Your task to perform on an android device: toggle location history Image 0: 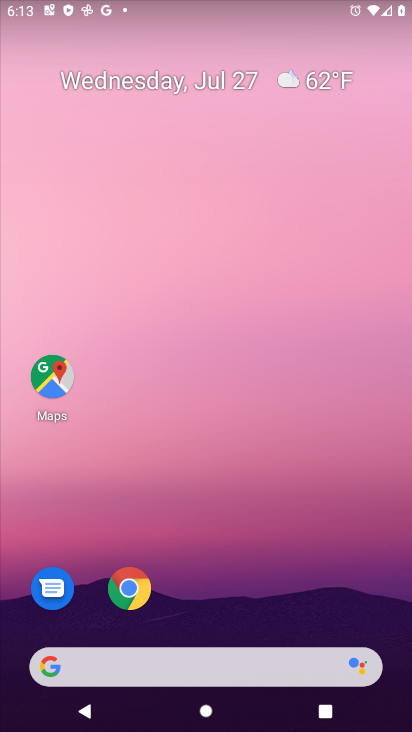
Step 0: drag from (194, 540) to (176, 223)
Your task to perform on an android device: toggle location history Image 1: 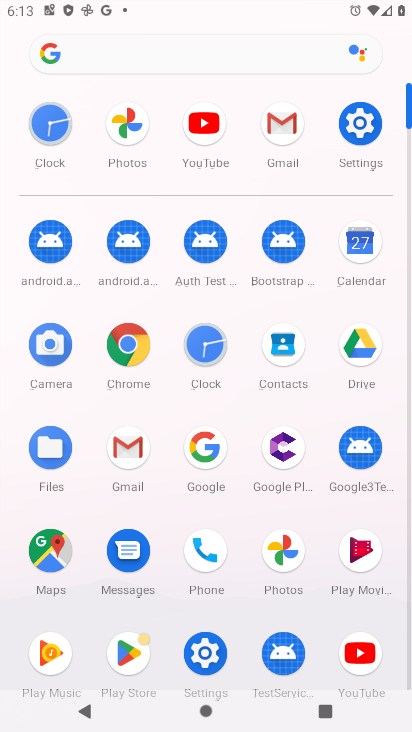
Step 1: click (357, 133)
Your task to perform on an android device: toggle location history Image 2: 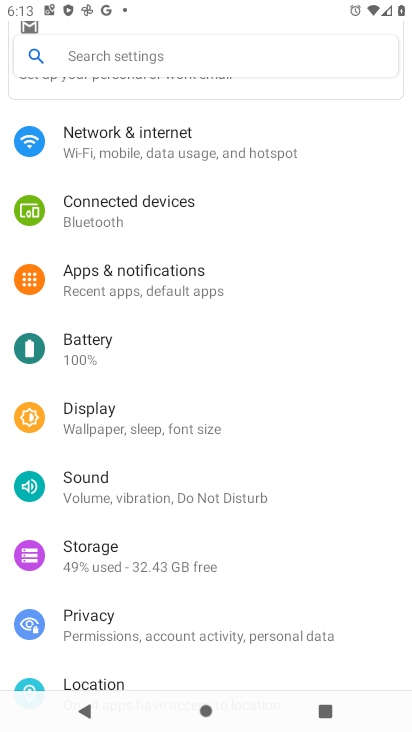
Step 2: click (114, 682)
Your task to perform on an android device: toggle location history Image 3: 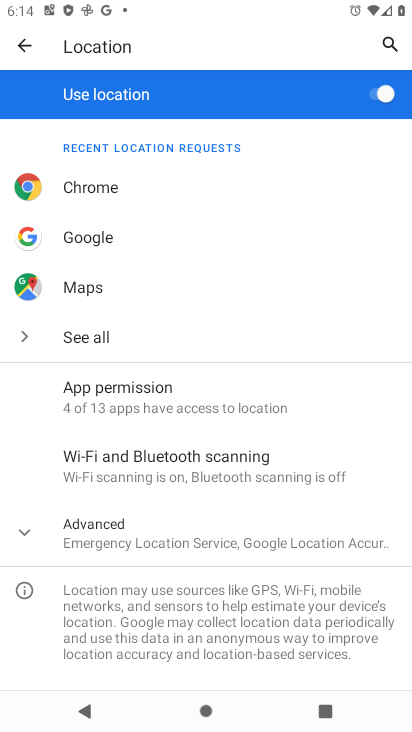
Step 3: click (155, 536)
Your task to perform on an android device: toggle location history Image 4: 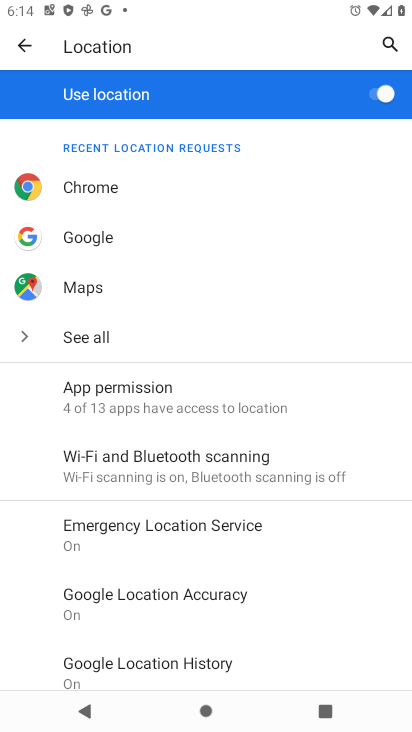
Step 4: drag from (164, 540) to (172, 397)
Your task to perform on an android device: toggle location history Image 5: 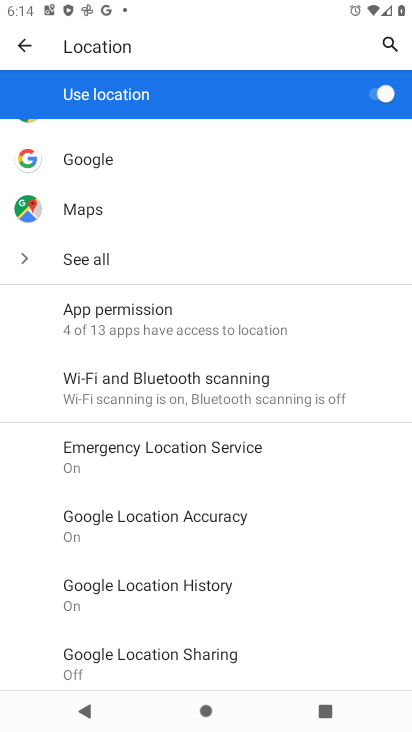
Step 5: click (158, 580)
Your task to perform on an android device: toggle location history Image 6: 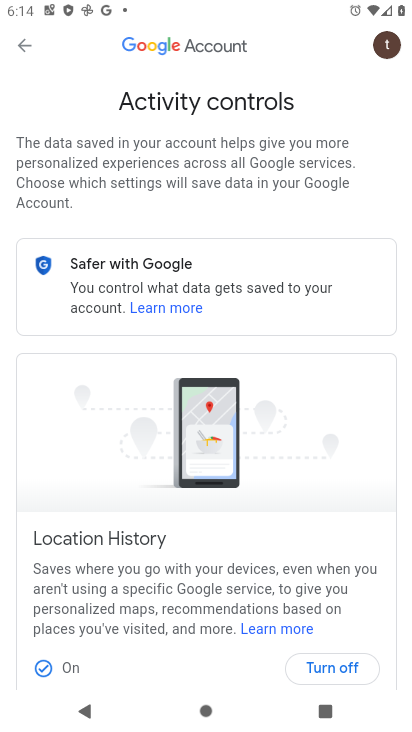
Step 6: click (327, 666)
Your task to perform on an android device: toggle location history Image 7: 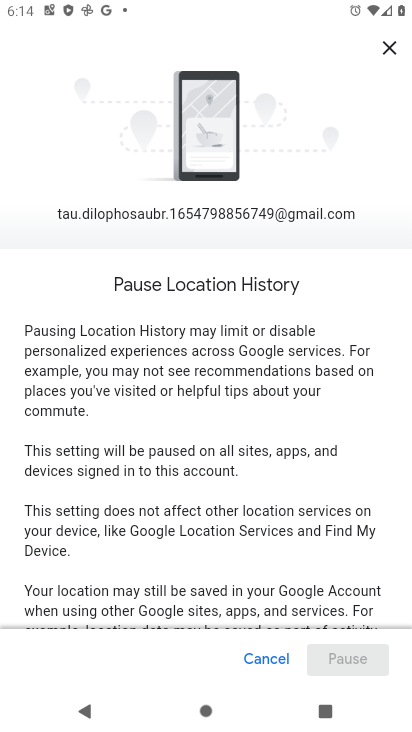
Step 7: drag from (243, 520) to (231, 246)
Your task to perform on an android device: toggle location history Image 8: 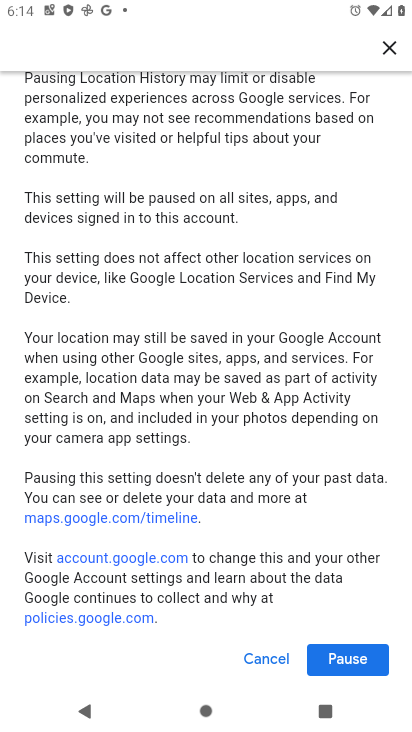
Step 8: click (350, 664)
Your task to perform on an android device: toggle location history Image 9: 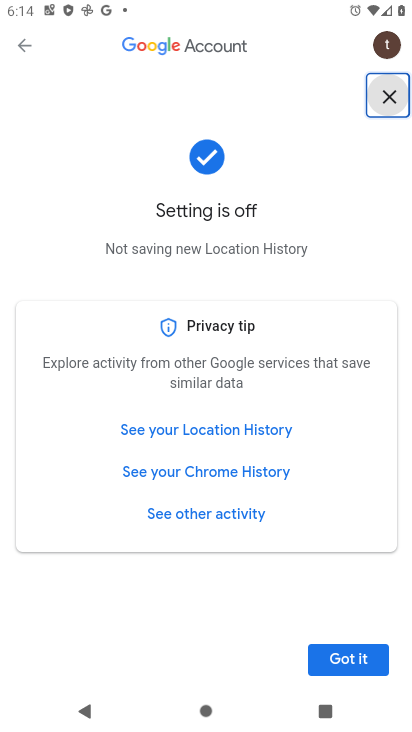
Step 9: click (350, 664)
Your task to perform on an android device: toggle location history Image 10: 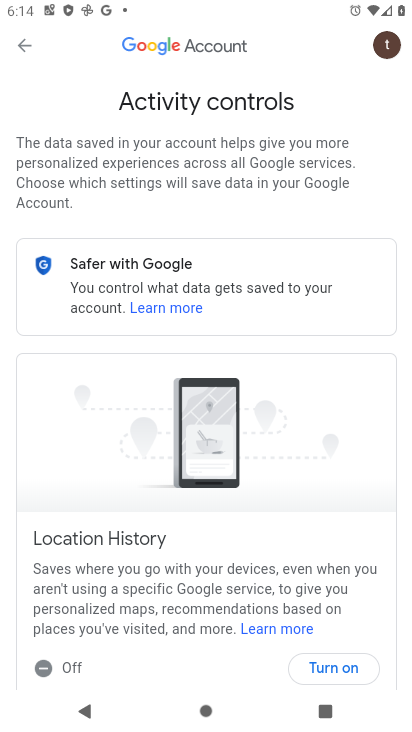
Step 10: task complete